Your task to perform on an android device: Add "macbook air" to the cart on target, then select checkout. Image 0: 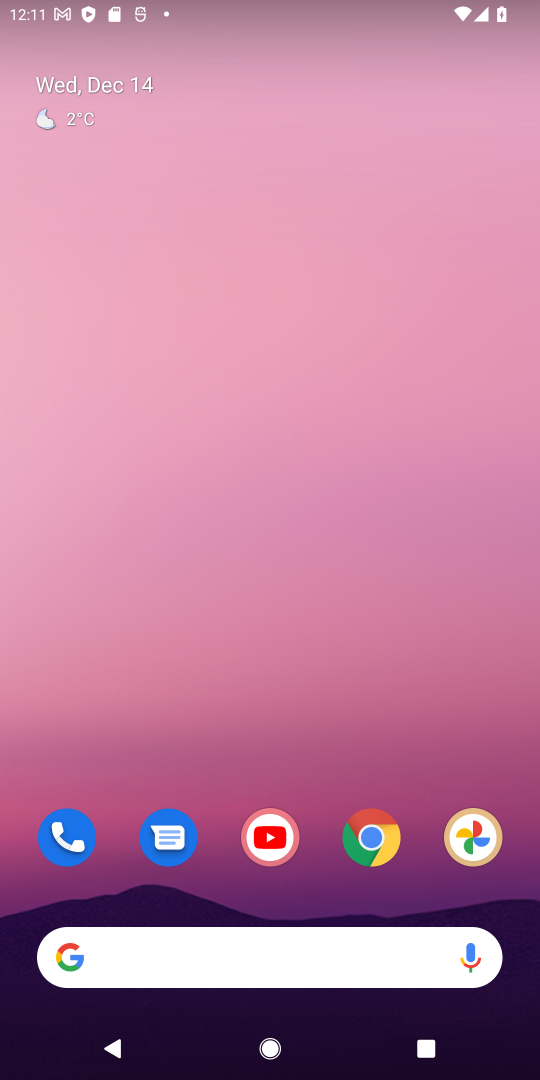
Step 0: click (274, 947)
Your task to perform on an android device: Add "macbook air" to the cart on target, then select checkout. Image 1: 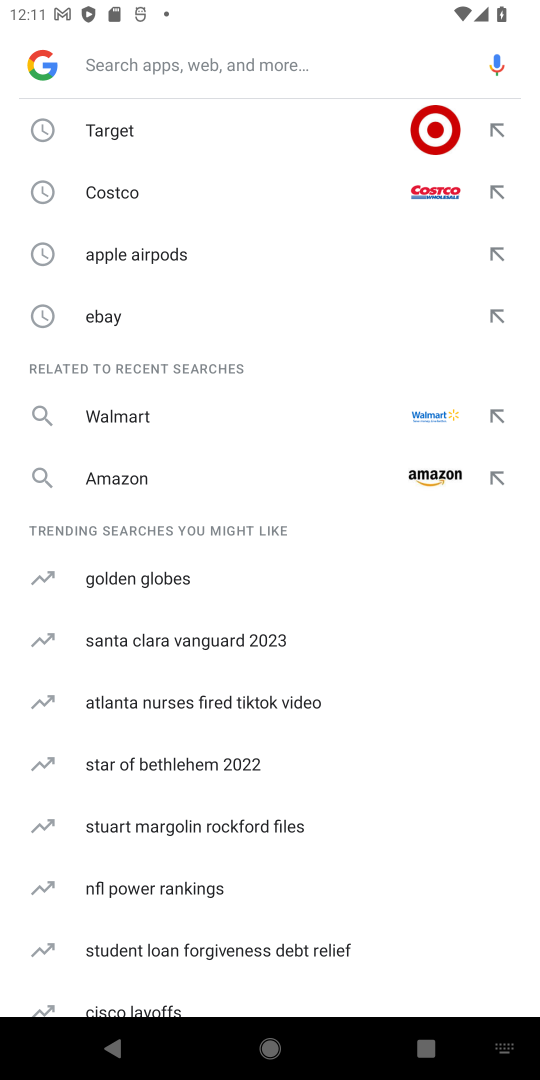
Step 1: click (117, 148)
Your task to perform on an android device: Add "macbook air" to the cart on target, then select checkout. Image 2: 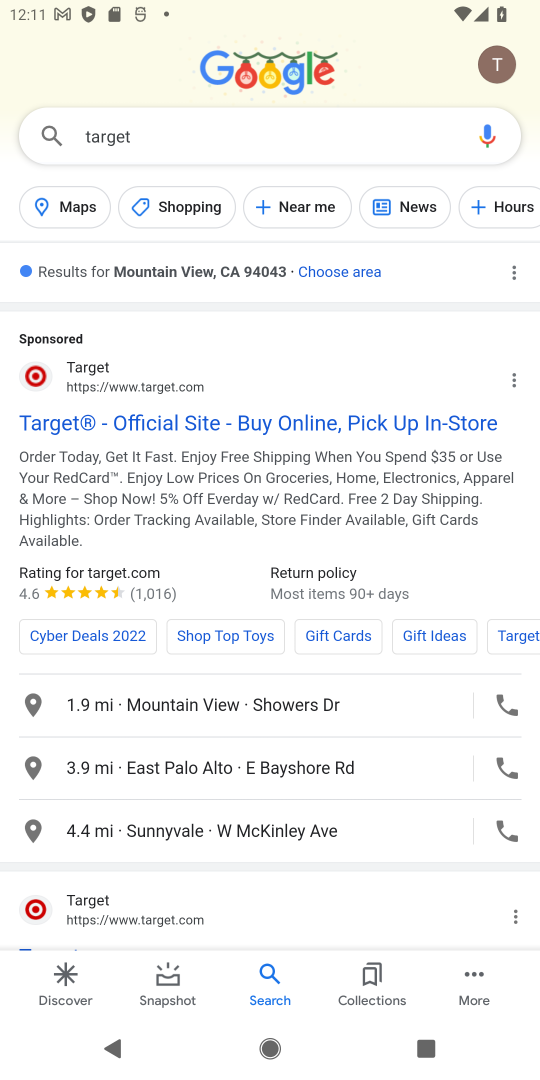
Step 2: click (97, 417)
Your task to perform on an android device: Add "macbook air" to the cart on target, then select checkout. Image 3: 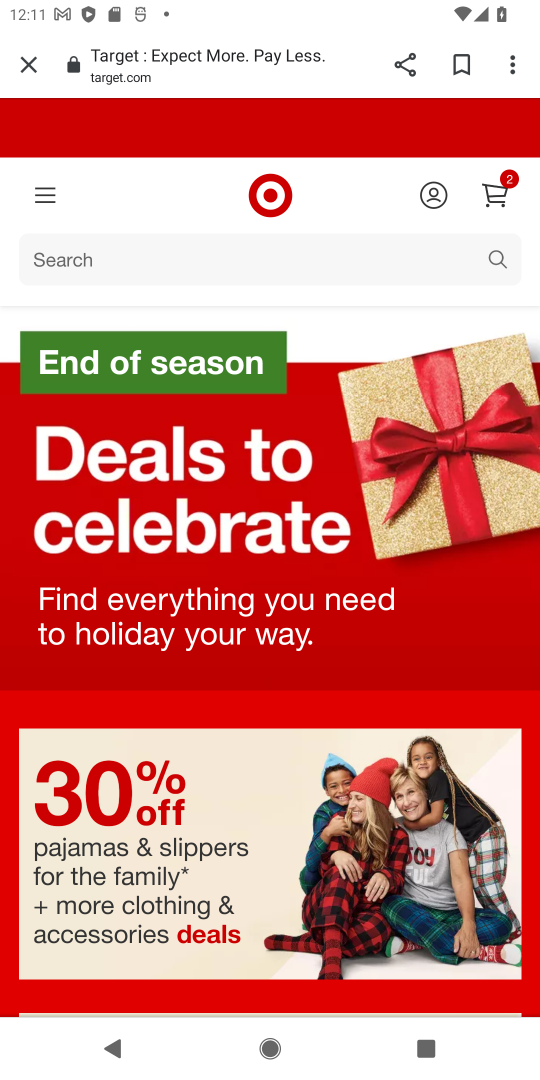
Step 3: click (106, 246)
Your task to perform on an android device: Add "macbook air" to the cart on target, then select checkout. Image 4: 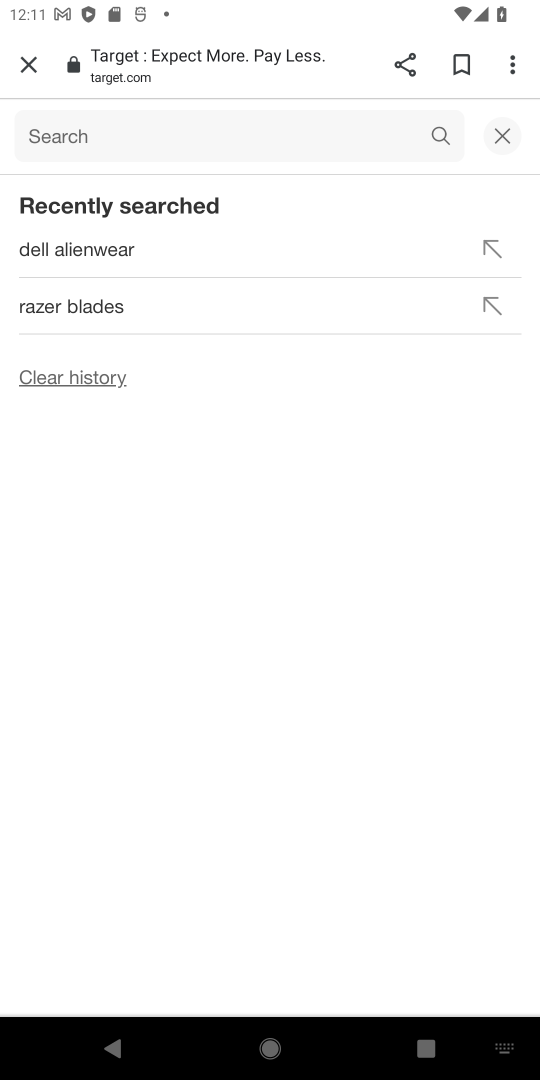
Step 4: type "macbook air"
Your task to perform on an android device: Add "macbook air" to the cart on target, then select checkout. Image 5: 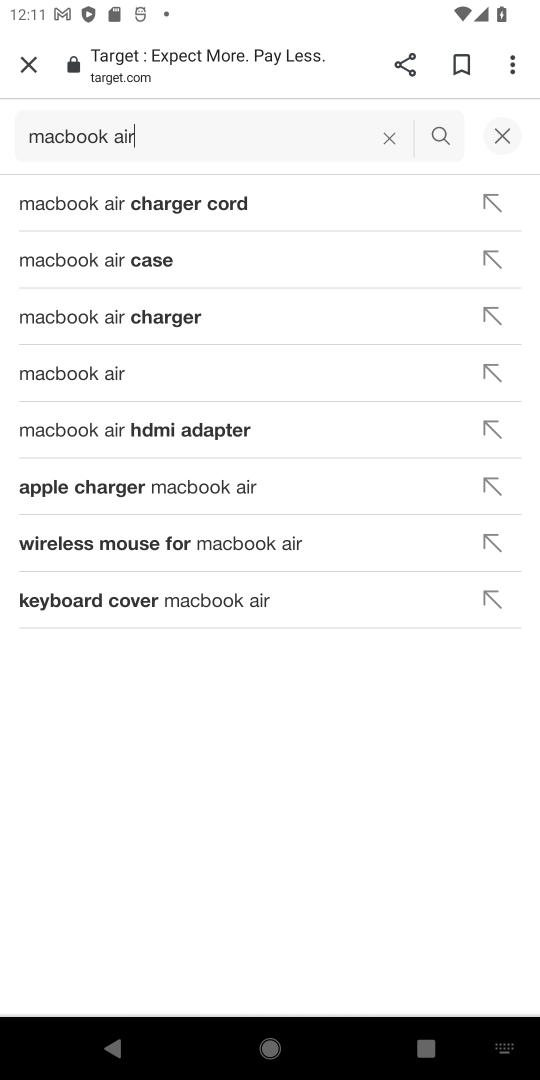
Step 5: click (109, 371)
Your task to perform on an android device: Add "macbook air" to the cart on target, then select checkout. Image 6: 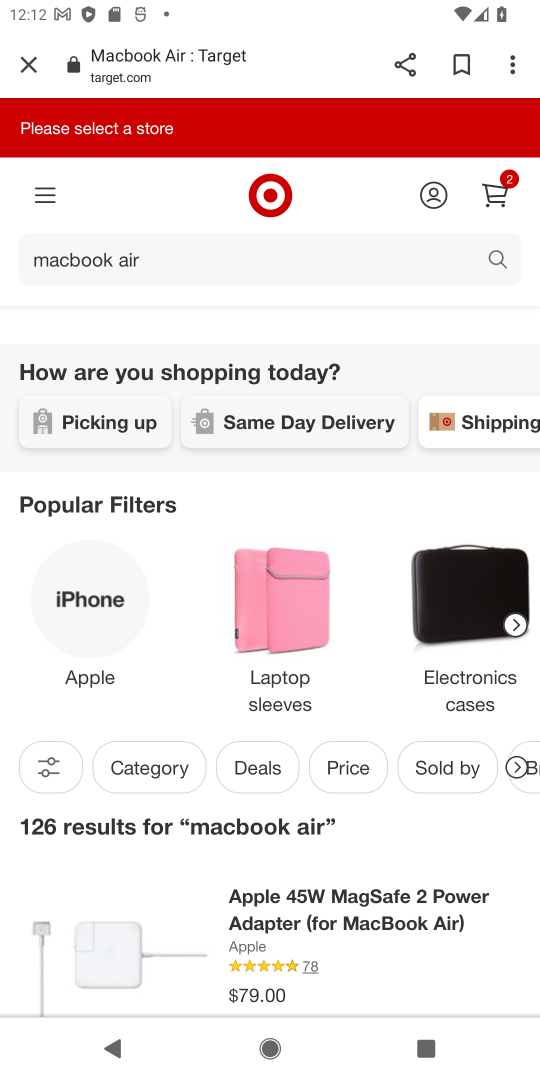
Step 6: task complete